Your task to perform on an android device: turn off notifications settings in the gmail app Image 0: 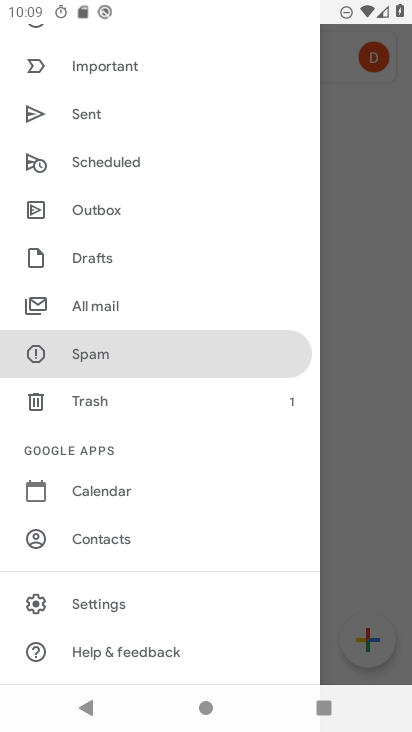
Step 0: press home button
Your task to perform on an android device: turn off notifications settings in the gmail app Image 1: 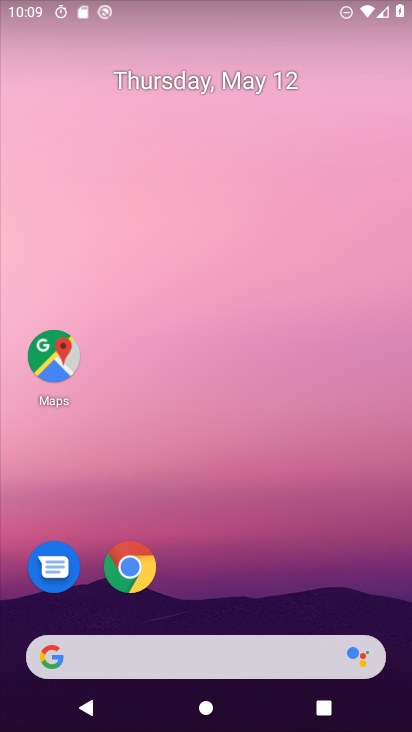
Step 1: drag from (223, 587) to (275, 214)
Your task to perform on an android device: turn off notifications settings in the gmail app Image 2: 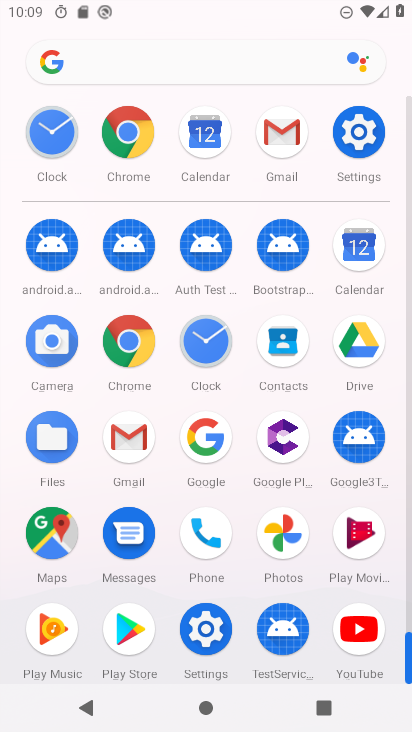
Step 2: click (147, 453)
Your task to perform on an android device: turn off notifications settings in the gmail app Image 3: 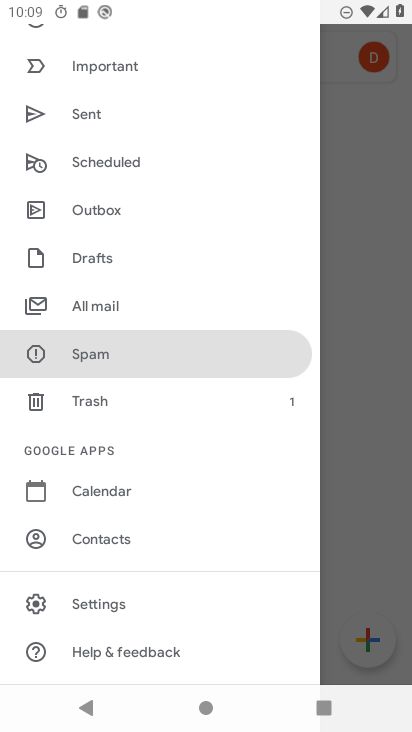
Step 3: click (348, 390)
Your task to perform on an android device: turn off notifications settings in the gmail app Image 4: 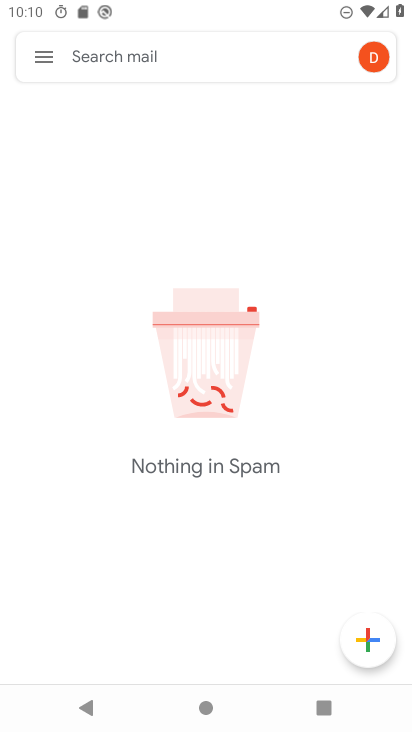
Step 4: click (52, 55)
Your task to perform on an android device: turn off notifications settings in the gmail app Image 5: 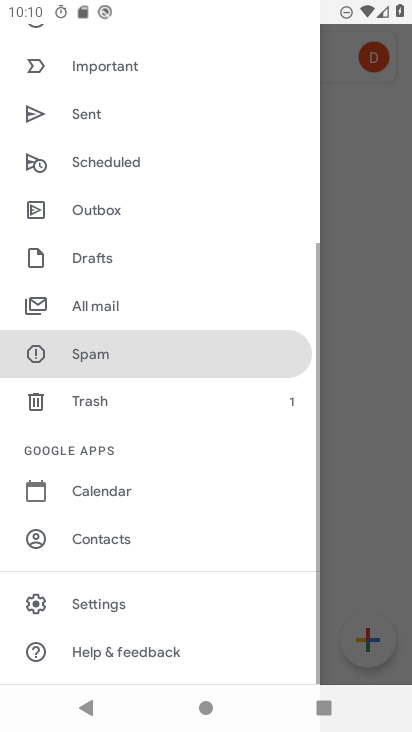
Step 5: drag from (96, 463) to (122, 119)
Your task to perform on an android device: turn off notifications settings in the gmail app Image 6: 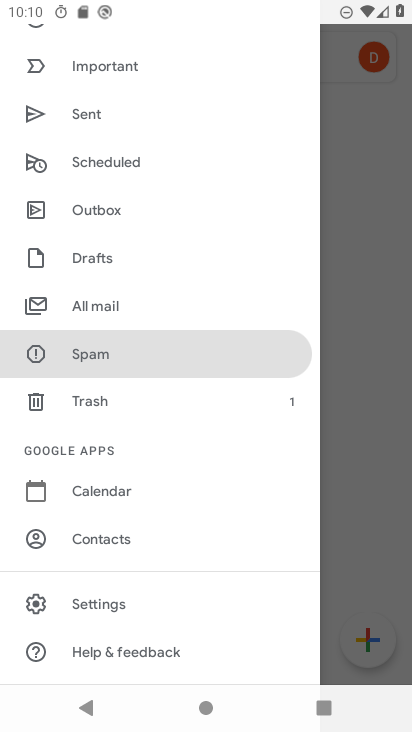
Step 6: click (113, 604)
Your task to perform on an android device: turn off notifications settings in the gmail app Image 7: 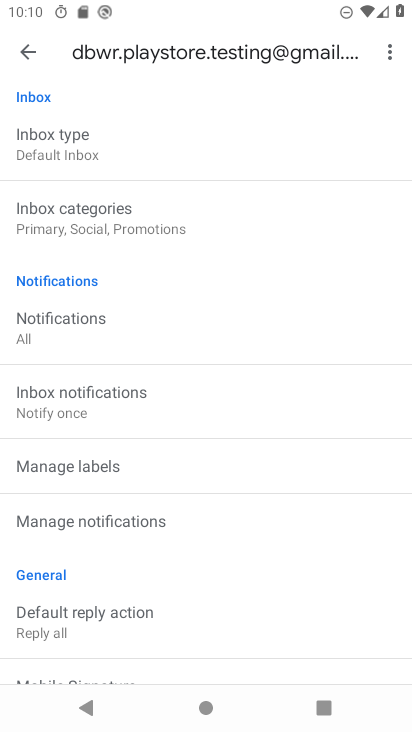
Step 7: drag from (217, 598) to (243, 353)
Your task to perform on an android device: turn off notifications settings in the gmail app Image 8: 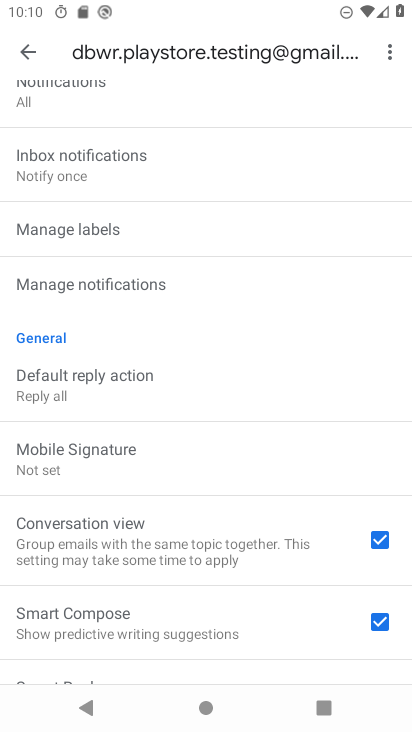
Step 8: drag from (177, 285) to (156, 569)
Your task to perform on an android device: turn off notifications settings in the gmail app Image 9: 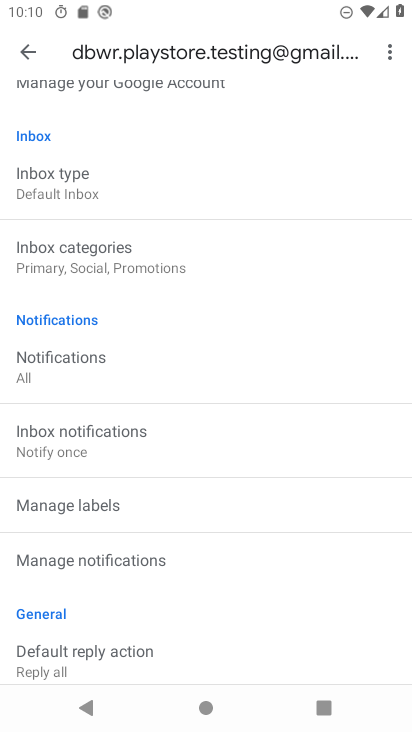
Step 9: drag from (129, 330) to (115, 534)
Your task to perform on an android device: turn off notifications settings in the gmail app Image 10: 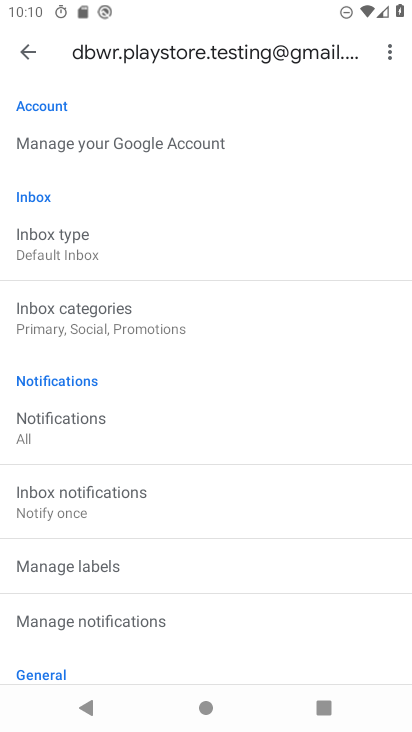
Step 10: click (33, 51)
Your task to perform on an android device: turn off notifications settings in the gmail app Image 11: 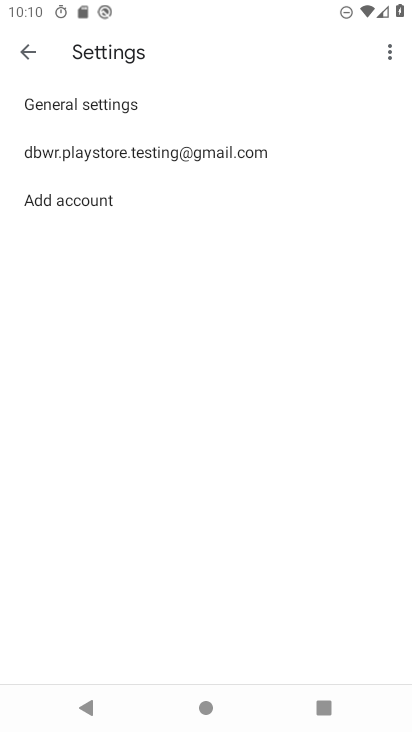
Step 11: click (116, 105)
Your task to perform on an android device: turn off notifications settings in the gmail app Image 12: 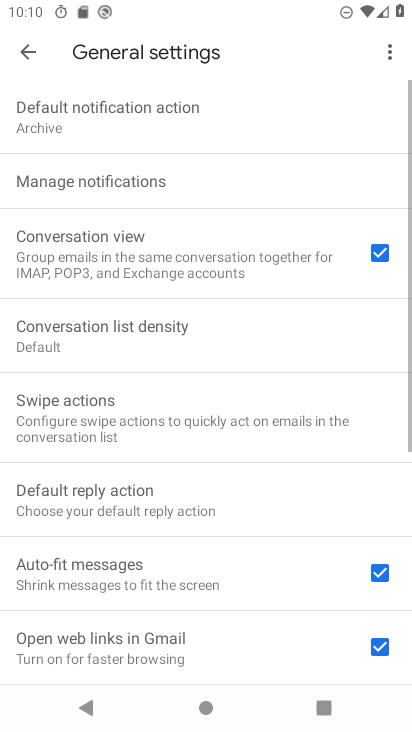
Step 12: click (122, 178)
Your task to perform on an android device: turn off notifications settings in the gmail app Image 13: 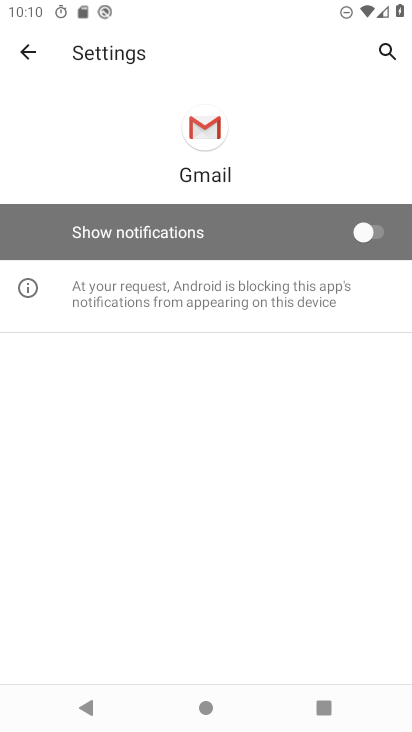
Step 13: click (235, 241)
Your task to perform on an android device: turn off notifications settings in the gmail app Image 14: 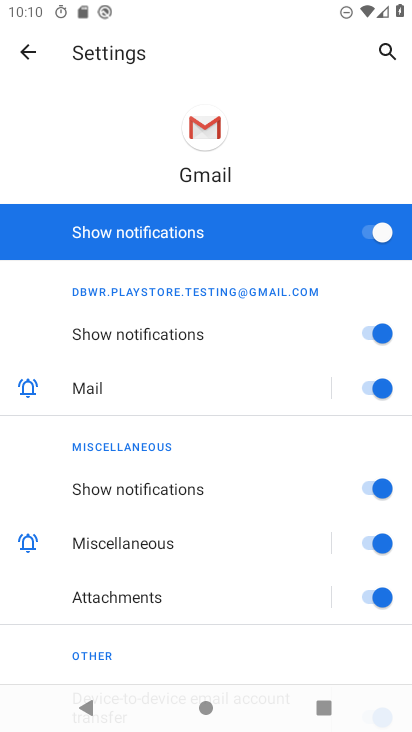
Step 14: click (338, 229)
Your task to perform on an android device: turn off notifications settings in the gmail app Image 15: 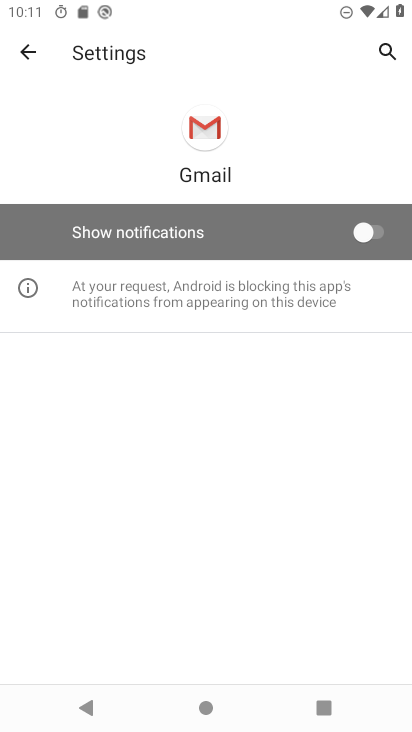
Step 15: task complete